Your task to perform on an android device: Go to battery settings Image 0: 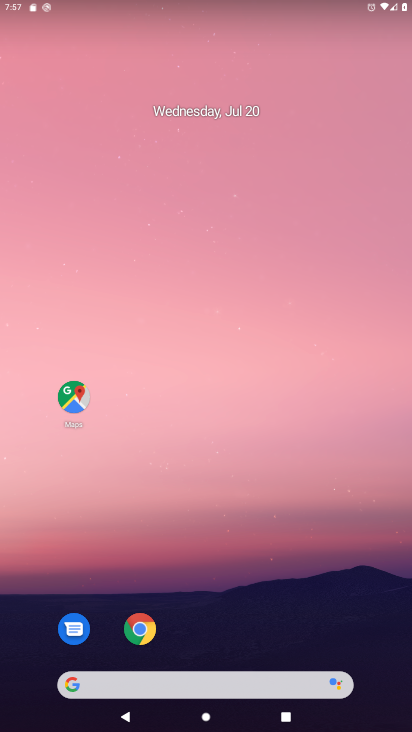
Step 0: drag from (274, 589) to (272, 133)
Your task to perform on an android device: Go to battery settings Image 1: 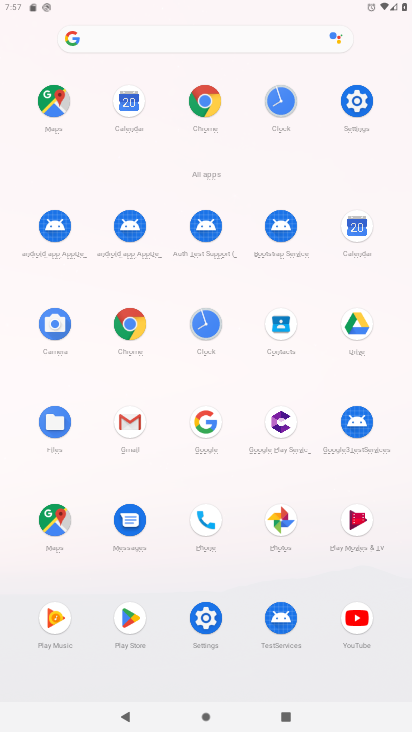
Step 1: click (210, 634)
Your task to perform on an android device: Go to battery settings Image 2: 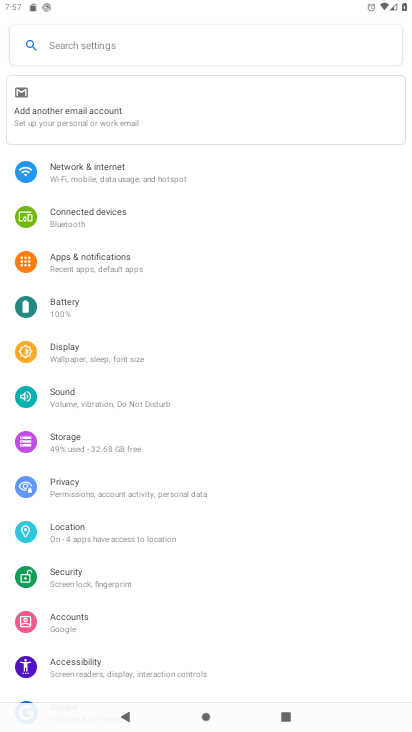
Step 2: click (75, 296)
Your task to perform on an android device: Go to battery settings Image 3: 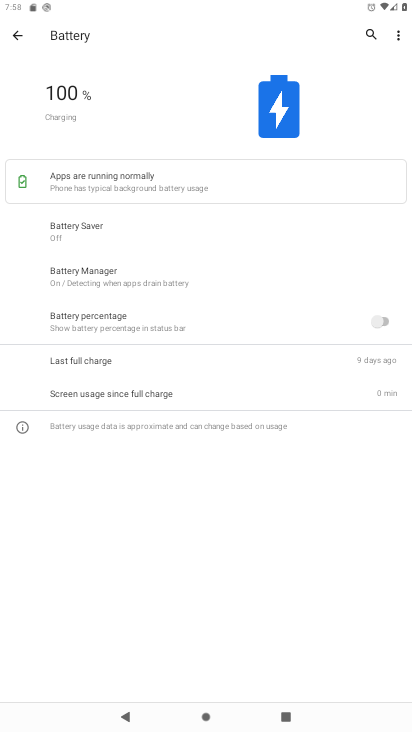
Step 3: task complete